Your task to perform on an android device: toggle pop-ups in chrome Image 0: 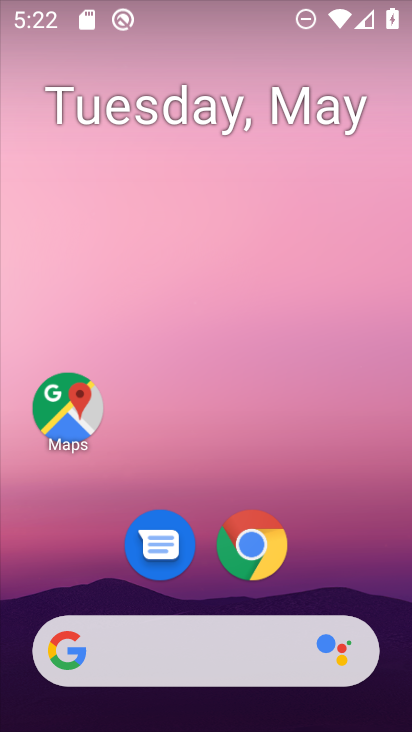
Step 0: drag from (299, 380) to (261, 12)
Your task to perform on an android device: toggle pop-ups in chrome Image 1: 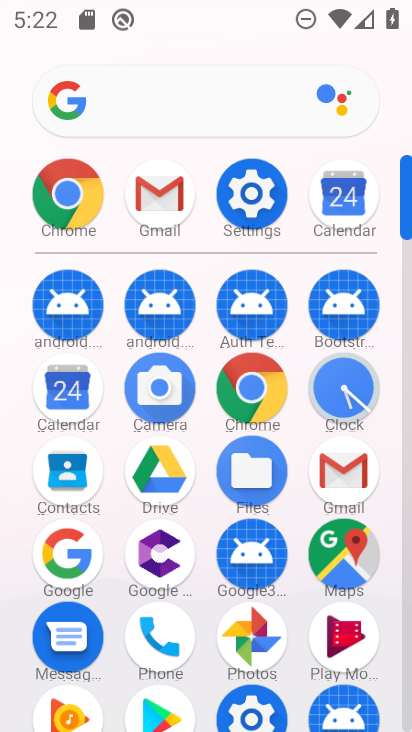
Step 1: drag from (22, 618) to (5, 260)
Your task to perform on an android device: toggle pop-ups in chrome Image 2: 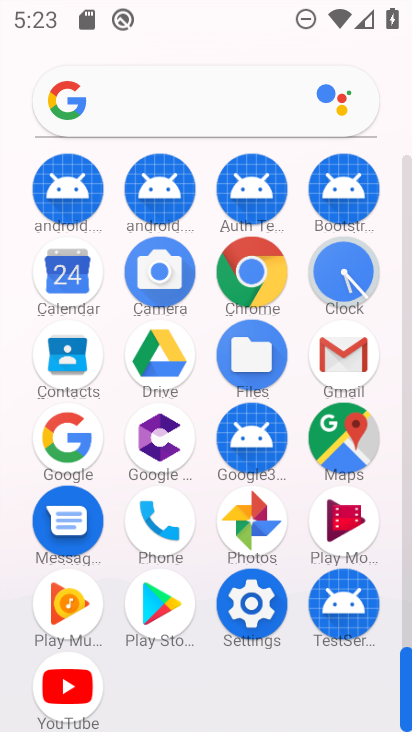
Step 2: click (255, 266)
Your task to perform on an android device: toggle pop-ups in chrome Image 3: 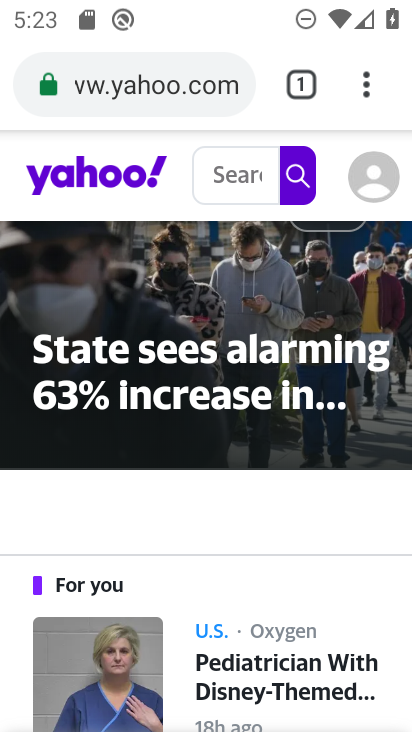
Step 3: drag from (366, 87) to (219, 175)
Your task to perform on an android device: toggle pop-ups in chrome Image 4: 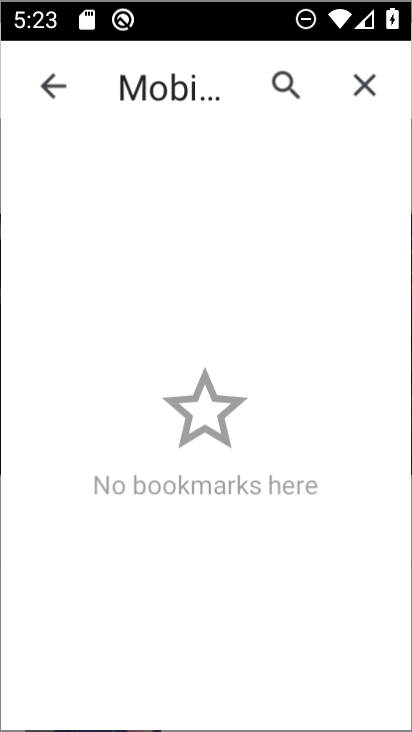
Step 4: click (168, 591)
Your task to perform on an android device: toggle pop-ups in chrome Image 5: 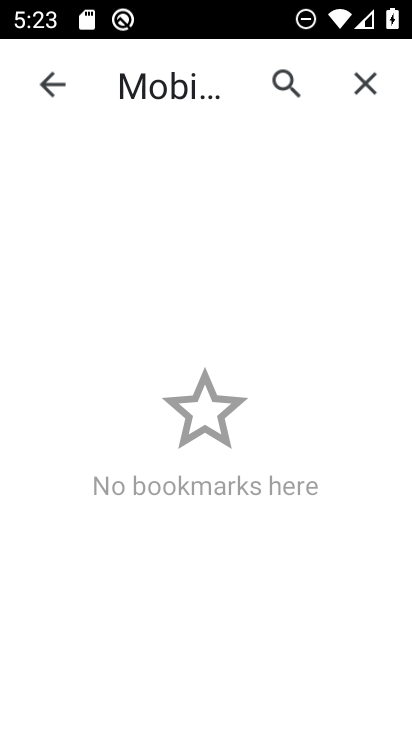
Step 5: click (57, 77)
Your task to perform on an android device: toggle pop-ups in chrome Image 6: 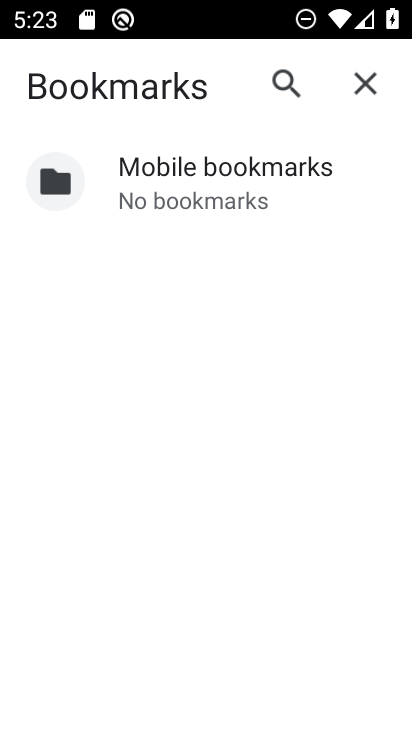
Step 6: click (361, 77)
Your task to perform on an android device: toggle pop-ups in chrome Image 7: 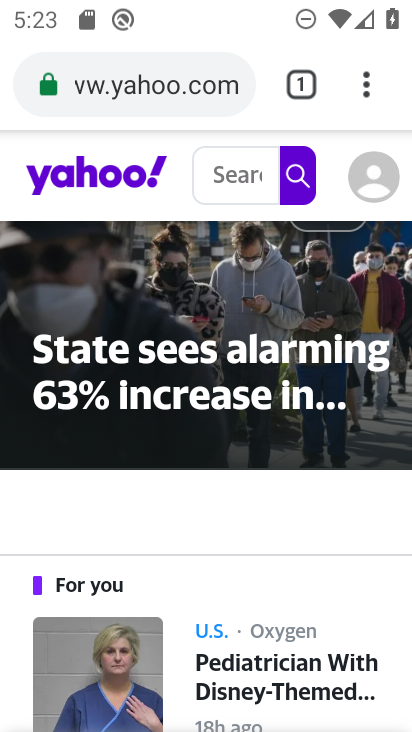
Step 7: drag from (366, 78) to (115, 587)
Your task to perform on an android device: toggle pop-ups in chrome Image 8: 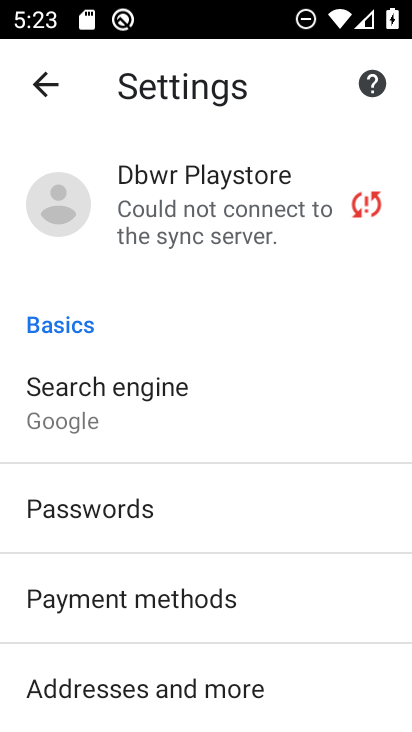
Step 8: drag from (258, 571) to (259, 232)
Your task to perform on an android device: toggle pop-ups in chrome Image 9: 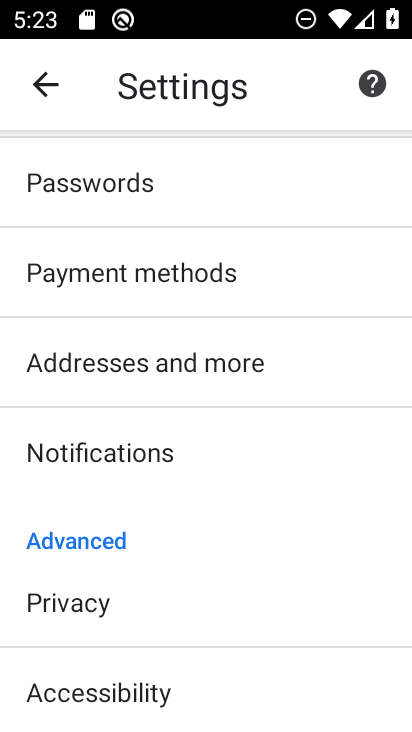
Step 9: drag from (260, 565) to (274, 215)
Your task to perform on an android device: toggle pop-ups in chrome Image 10: 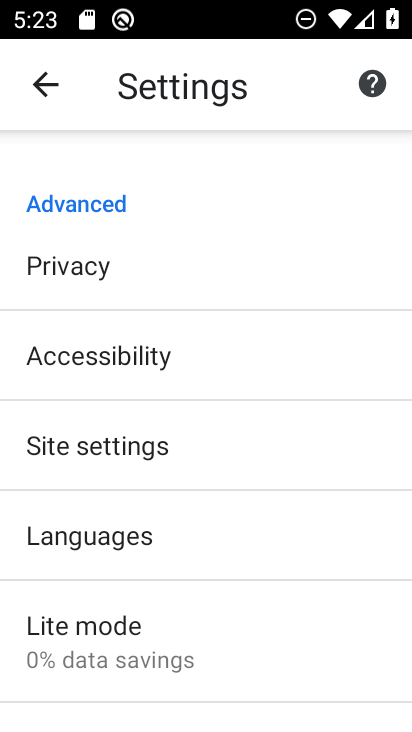
Step 10: drag from (255, 615) to (264, 275)
Your task to perform on an android device: toggle pop-ups in chrome Image 11: 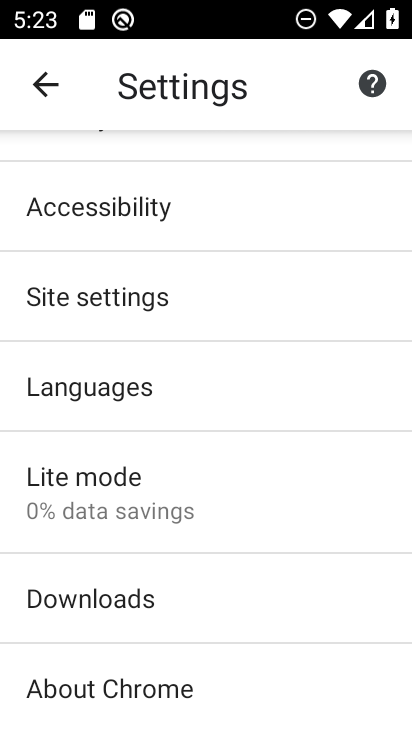
Step 11: click (133, 310)
Your task to perform on an android device: toggle pop-ups in chrome Image 12: 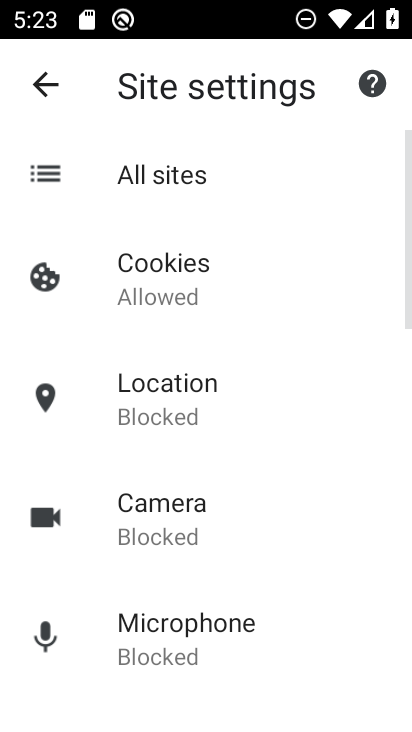
Step 12: drag from (291, 660) to (273, 174)
Your task to perform on an android device: toggle pop-ups in chrome Image 13: 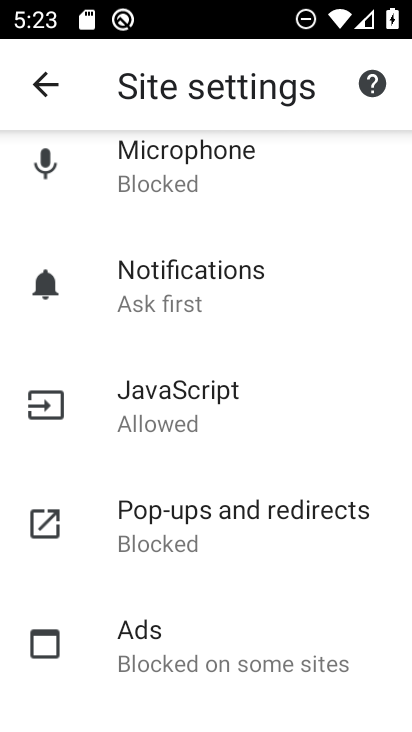
Step 13: click (239, 552)
Your task to perform on an android device: toggle pop-ups in chrome Image 14: 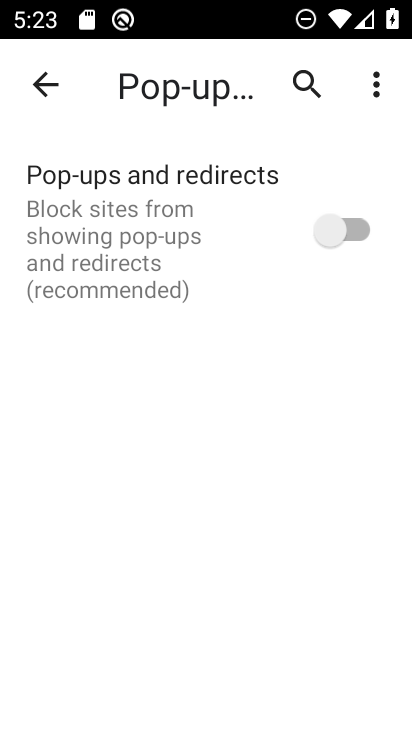
Step 14: click (327, 216)
Your task to perform on an android device: toggle pop-ups in chrome Image 15: 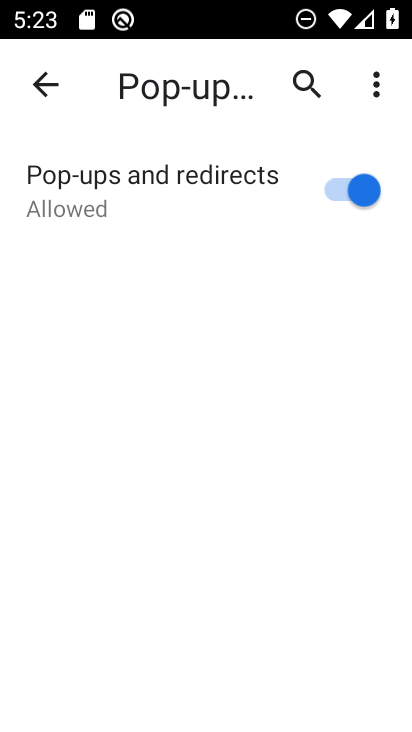
Step 15: task complete